Your task to perform on an android device: Search for vegetarian restaurants on Maps Image 0: 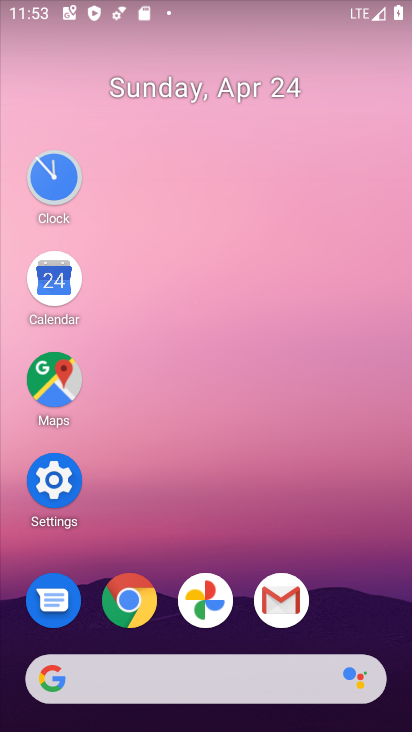
Step 0: click (54, 382)
Your task to perform on an android device: Search for vegetarian restaurants on Maps Image 1: 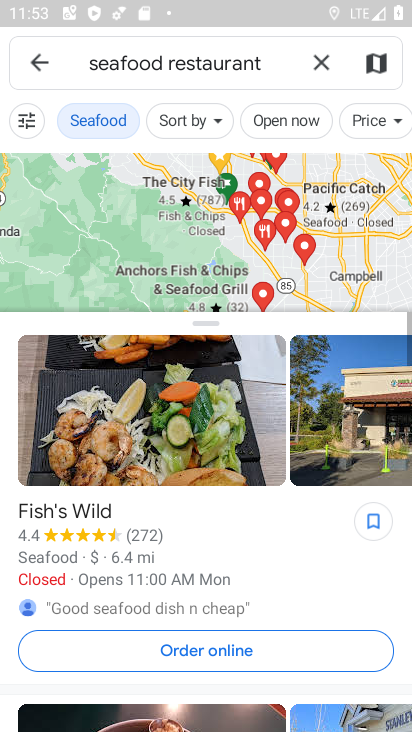
Step 1: click (321, 59)
Your task to perform on an android device: Search for vegetarian restaurants on Maps Image 2: 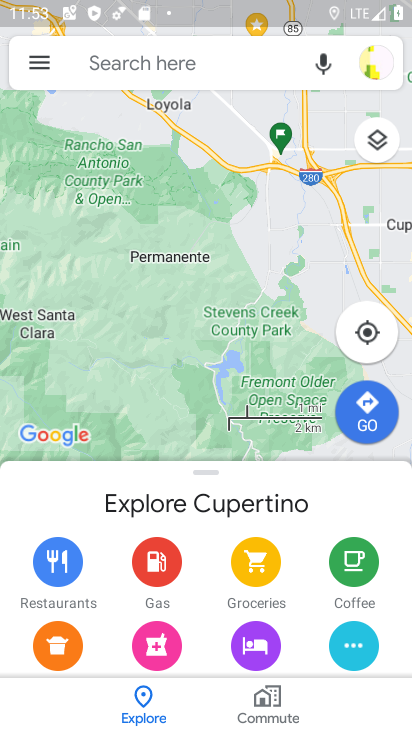
Step 2: click (190, 65)
Your task to perform on an android device: Search for vegetarian restaurants on Maps Image 3: 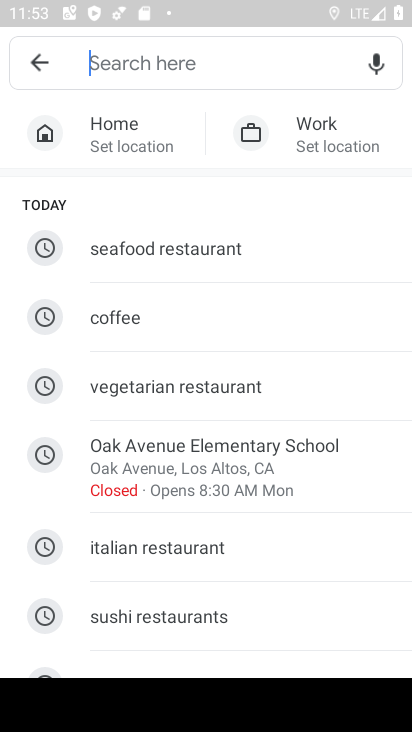
Step 3: click (184, 385)
Your task to perform on an android device: Search for vegetarian restaurants on Maps Image 4: 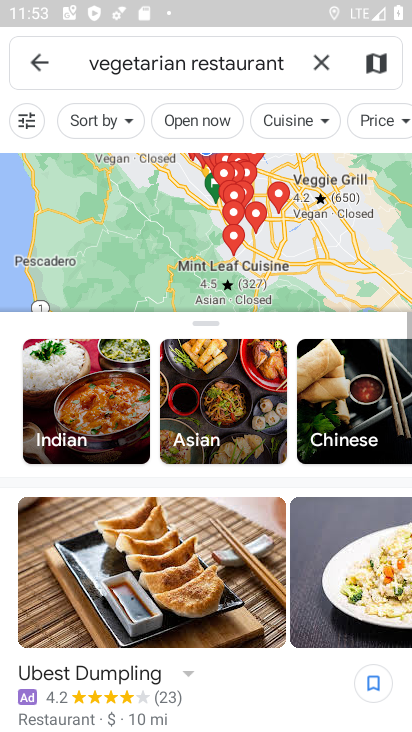
Step 4: task complete